Your task to perform on an android device: clear history in the chrome app Image 0: 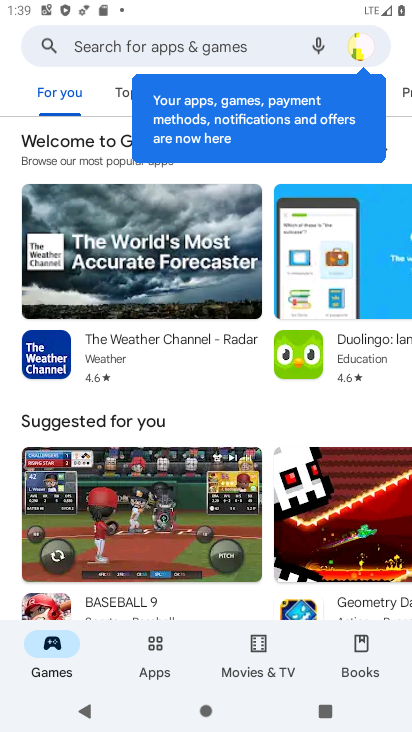
Step 0: press home button
Your task to perform on an android device: clear history in the chrome app Image 1: 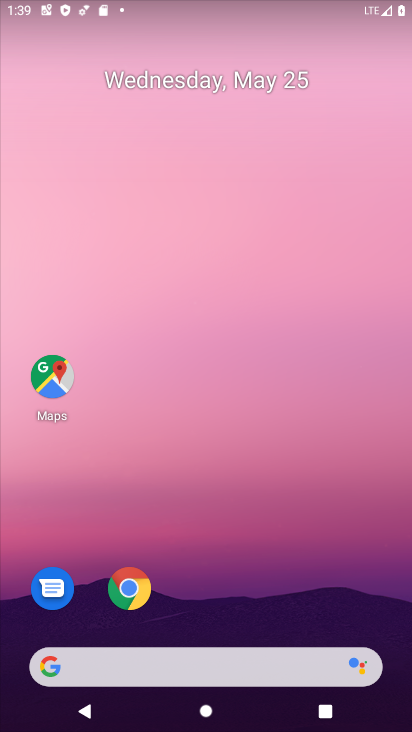
Step 1: click (128, 591)
Your task to perform on an android device: clear history in the chrome app Image 2: 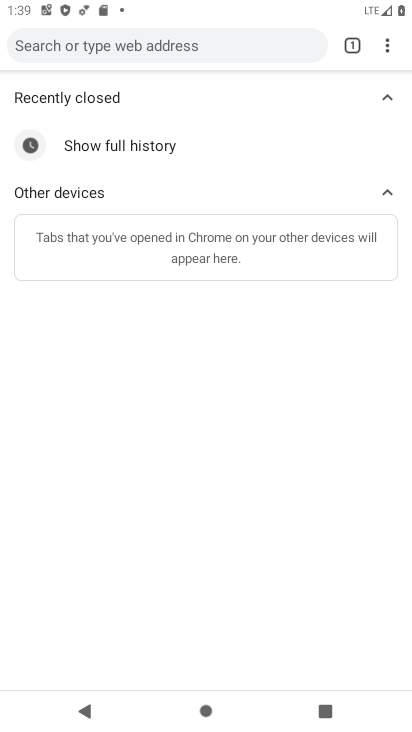
Step 2: click (389, 42)
Your task to perform on an android device: clear history in the chrome app Image 3: 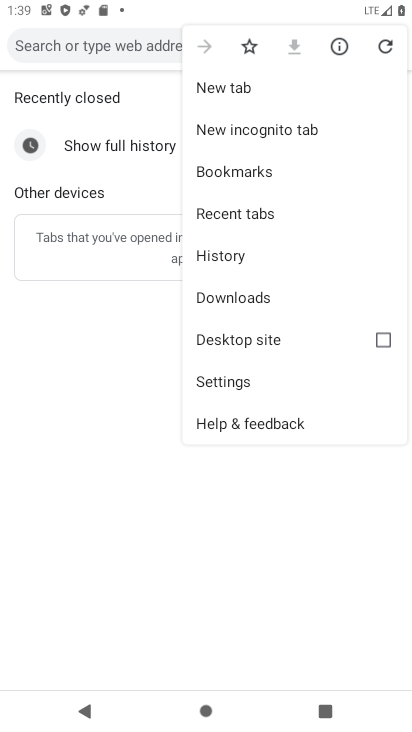
Step 3: click (227, 386)
Your task to perform on an android device: clear history in the chrome app Image 4: 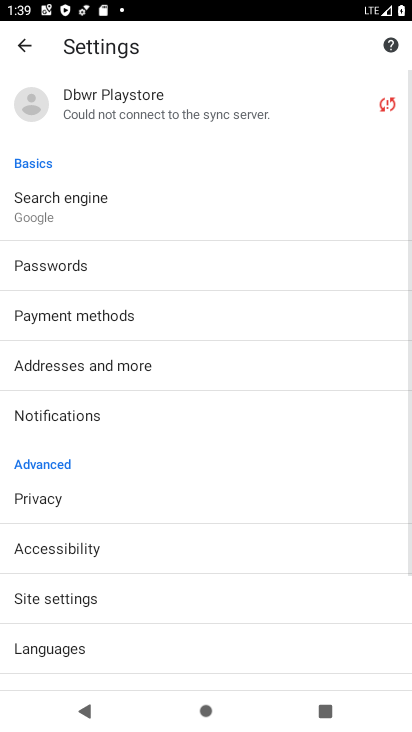
Step 4: drag from (138, 565) to (145, 218)
Your task to perform on an android device: clear history in the chrome app Image 5: 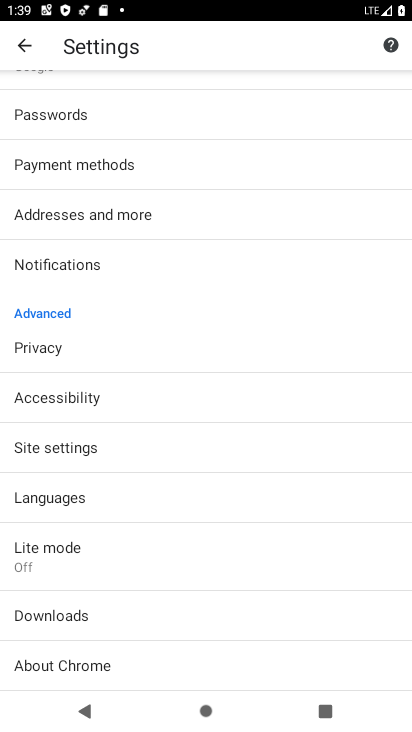
Step 5: click (43, 354)
Your task to perform on an android device: clear history in the chrome app Image 6: 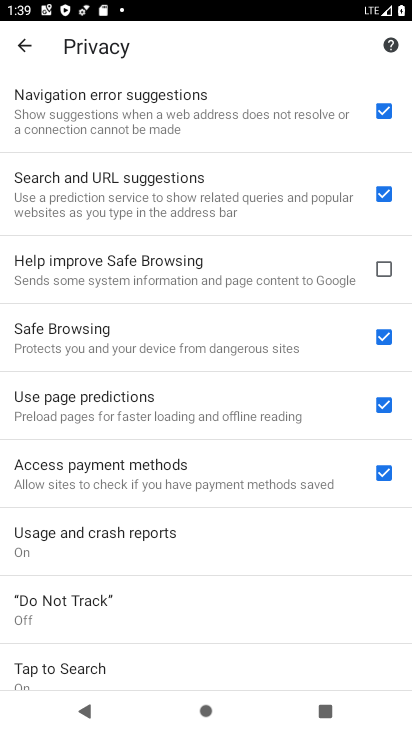
Step 6: drag from (159, 293) to (156, 141)
Your task to perform on an android device: clear history in the chrome app Image 7: 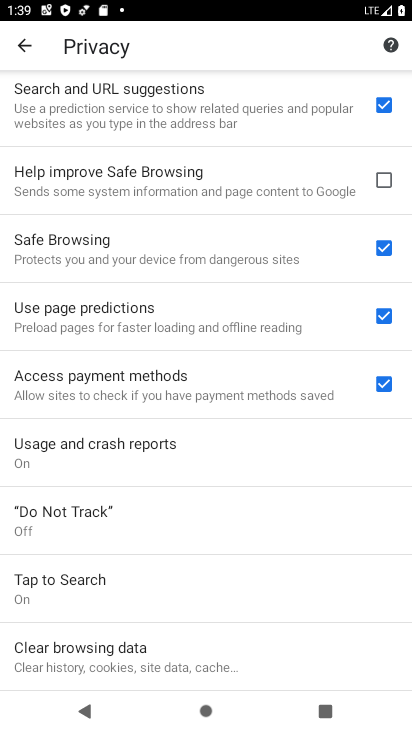
Step 7: drag from (175, 574) to (163, 160)
Your task to perform on an android device: clear history in the chrome app Image 8: 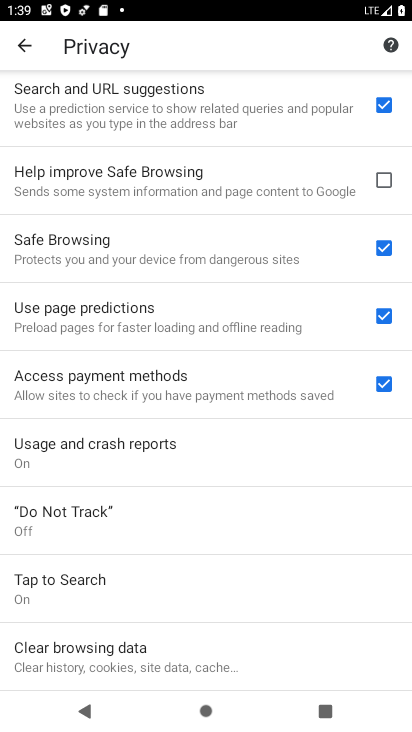
Step 8: click (74, 658)
Your task to perform on an android device: clear history in the chrome app Image 9: 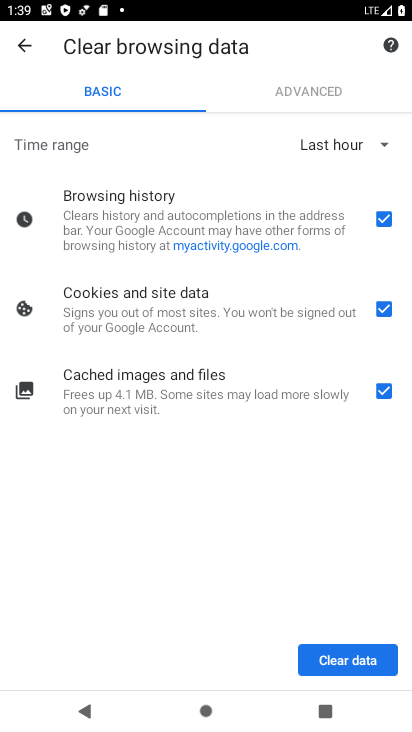
Step 9: click (387, 315)
Your task to perform on an android device: clear history in the chrome app Image 10: 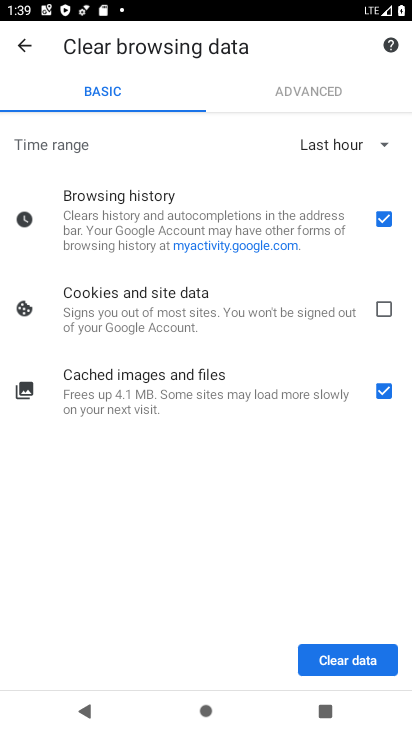
Step 10: click (383, 394)
Your task to perform on an android device: clear history in the chrome app Image 11: 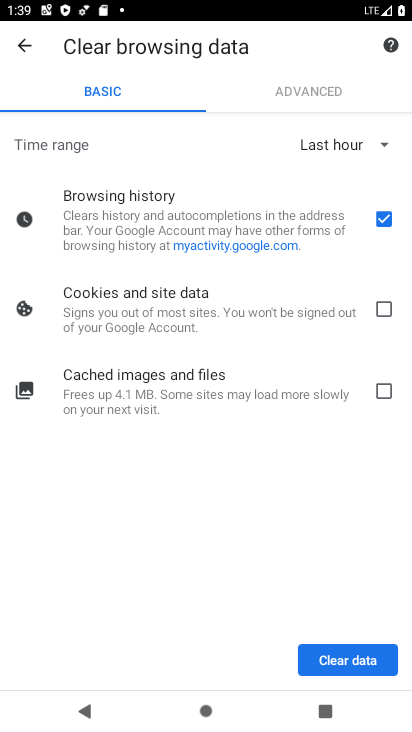
Step 11: click (370, 665)
Your task to perform on an android device: clear history in the chrome app Image 12: 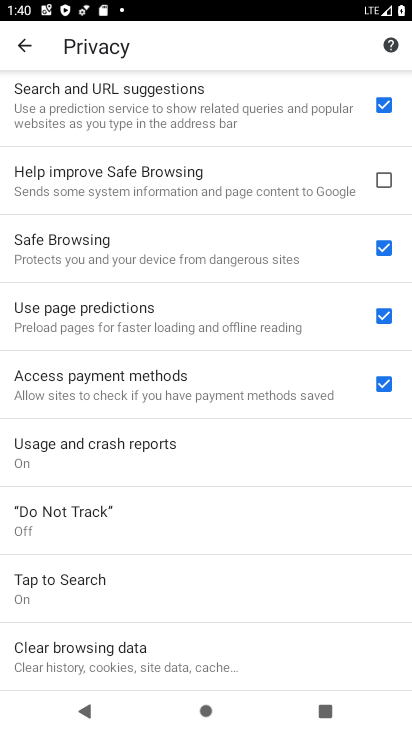
Step 12: task complete